Your task to perform on an android device: open wifi settings Image 0: 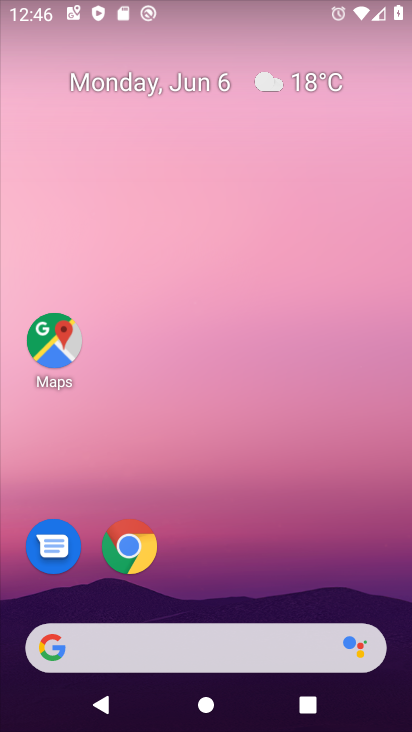
Step 0: drag from (238, 572) to (220, 123)
Your task to perform on an android device: open wifi settings Image 1: 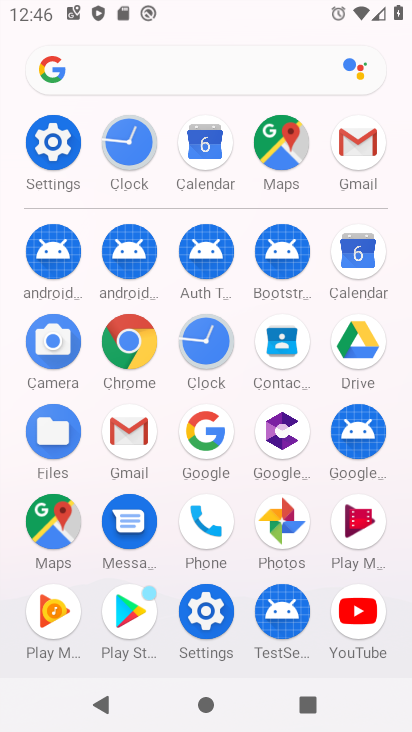
Step 1: click (44, 144)
Your task to perform on an android device: open wifi settings Image 2: 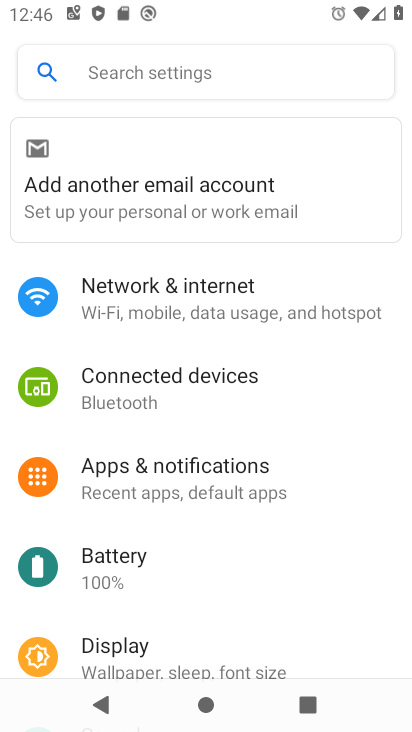
Step 2: click (133, 303)
Your task to perform on an android device: open wifi settings Image 3: 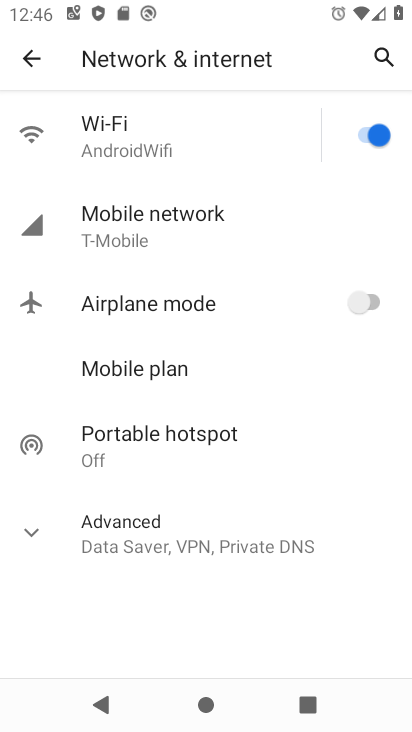
Step 3: task complete